Your task to perform on an android device: Search for sushi restaurants on Maps Image 0: 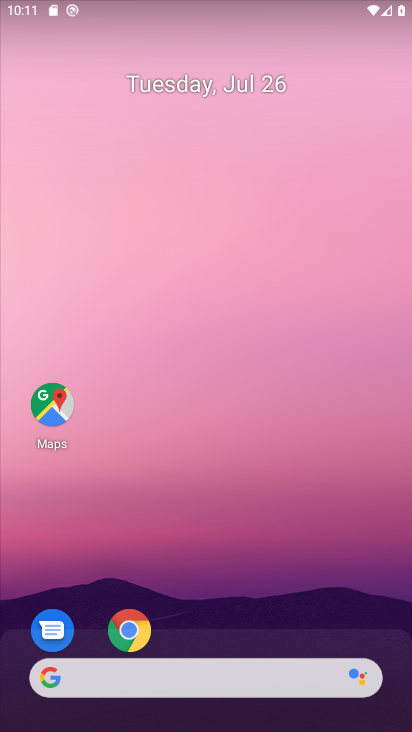
Step 0: click (51, 424)
Your task to perform on an android device: Search for sushi restaurants on Maps Image 1: 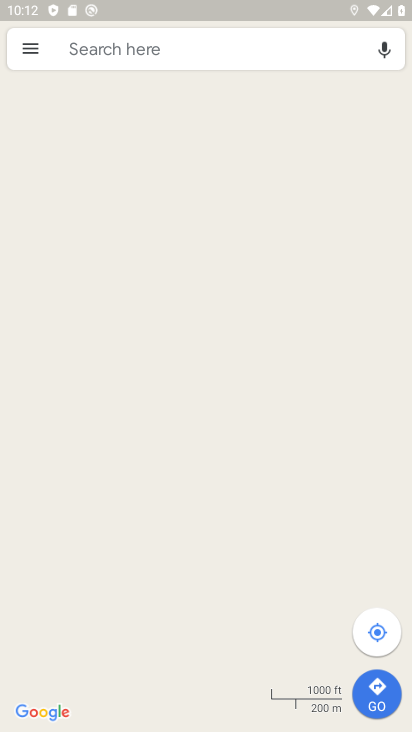
Step 1: click (138, 59)
Your task to perform on an android device: Search for sushi restaurants on Maps Image 2: 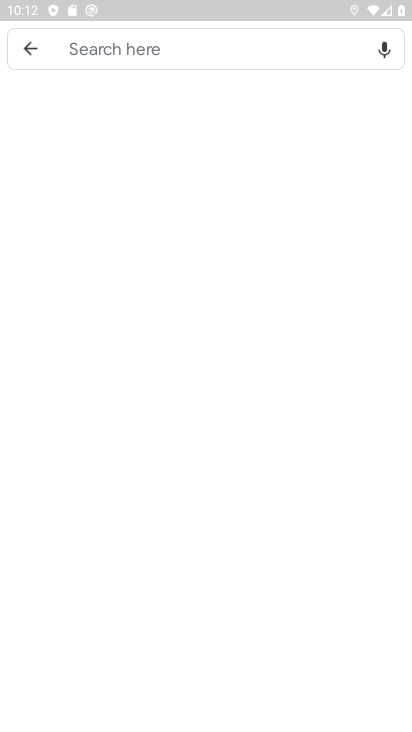
Step 2: click (175, 58)
Your task to perform on an android device: Search for sushi restaurants on Maps Image 3: 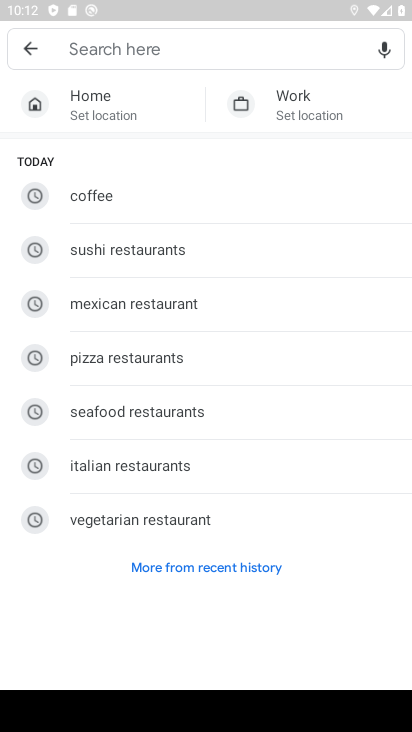
Step 3: click (125, 255)
Your task to perform on an android device: Search for sushi restaurants on Maps Image 4: 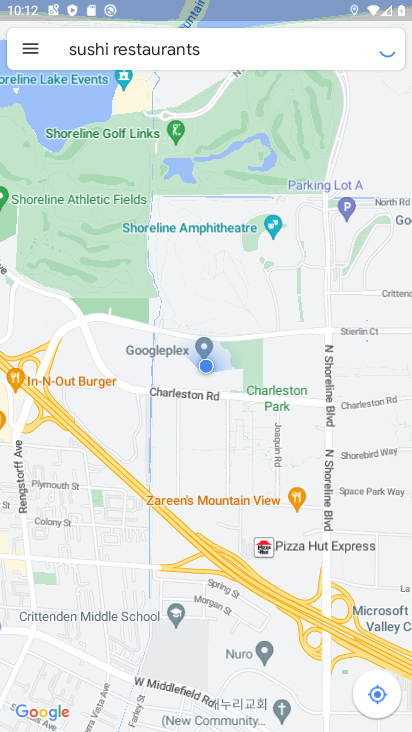
Step 4: task complete